Your task to perform on an android device: check storage Image 0: 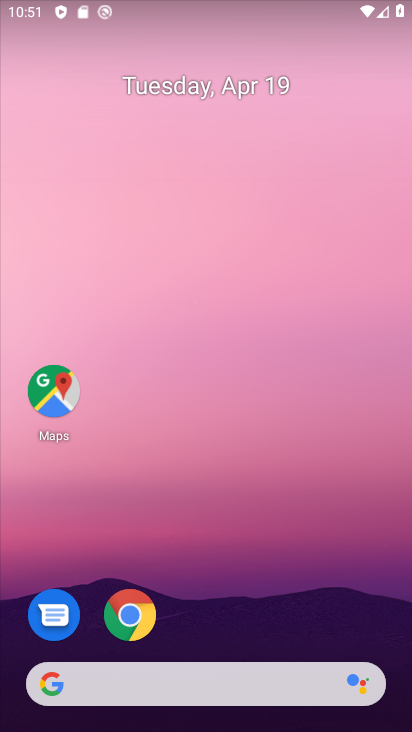
Step 0: drag from (196, 621) to (200, 186)
Your task to perform on an android device: check storage Image 1: 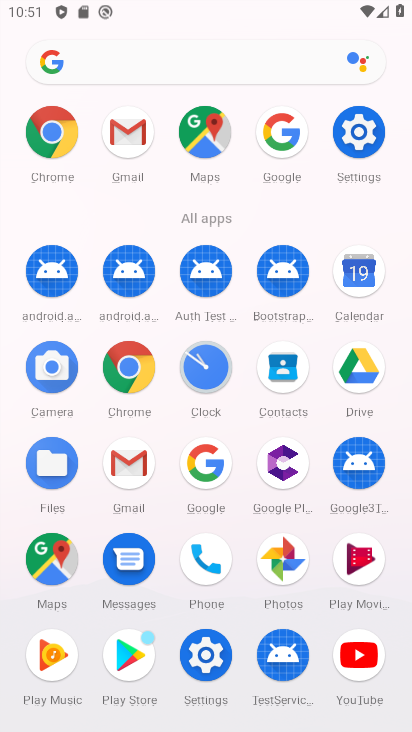
Step 1: click (354, 142)
Your task to perform on an android device: check storage Image 2: 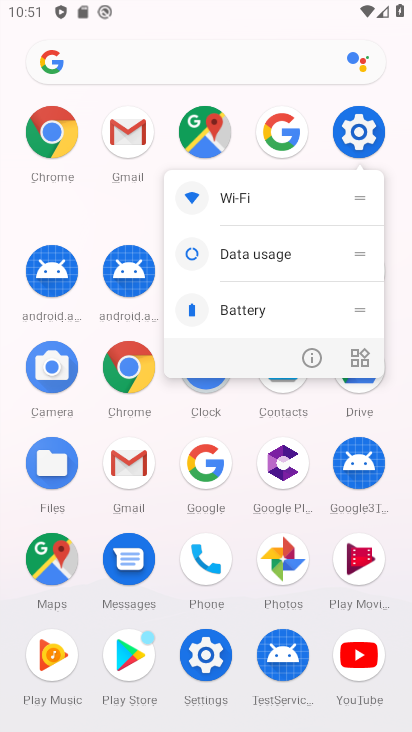
Step 2: click (380, 136)
Your task to perform on an android device: check storage Image 3: 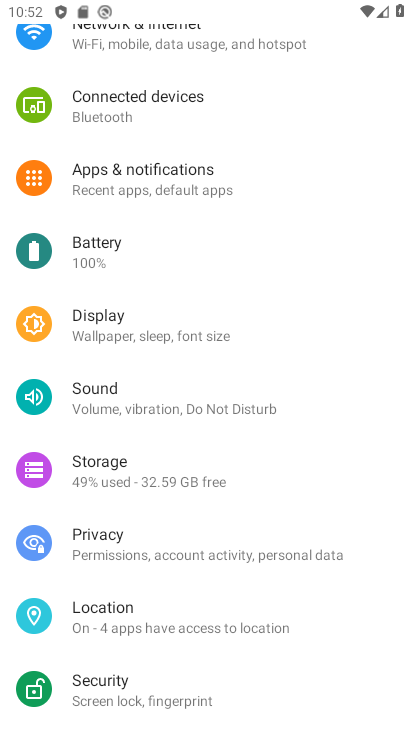
Step 3: click (138, 476)
Your task to perform on an android device: check storage Image 4: 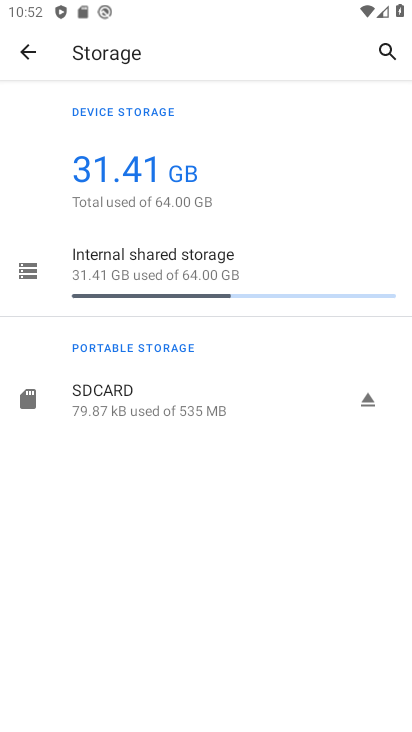
Step 4: click (164, 391)
Your task to perform on an android device: check storage Image 5: 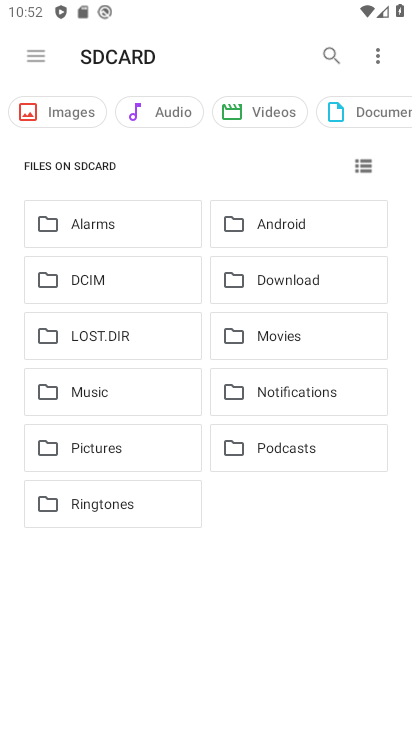
Step 5: task complete